Your task to perform on an android device: Open Amazon Image 0: 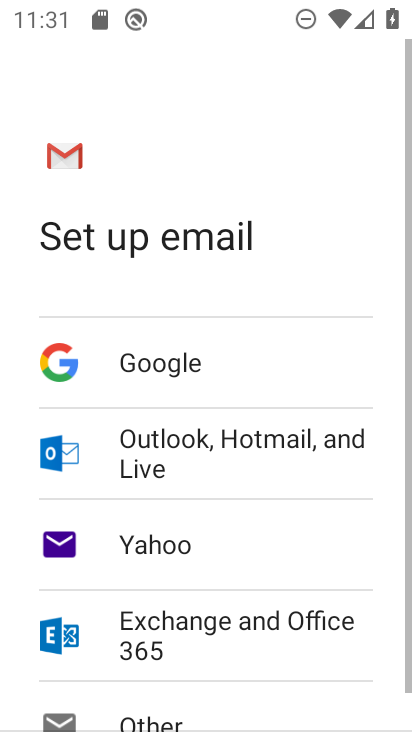
Step 0: press home button
Your task to perform on an android device: Open Amazon Image 1: 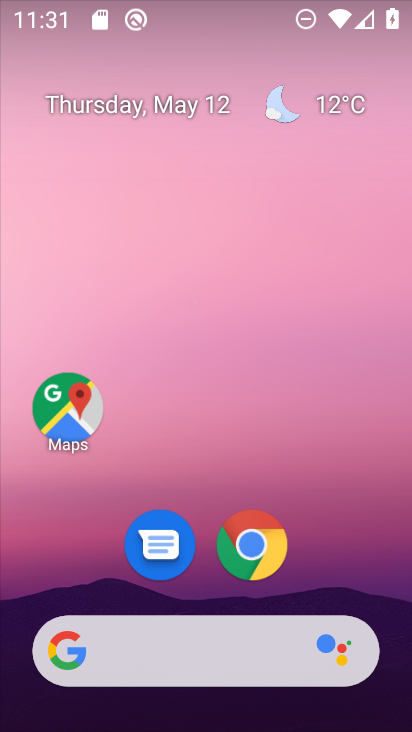
Step 1: click (257, 541)
Your task to perform on an android device: Open Amazon Image 2: 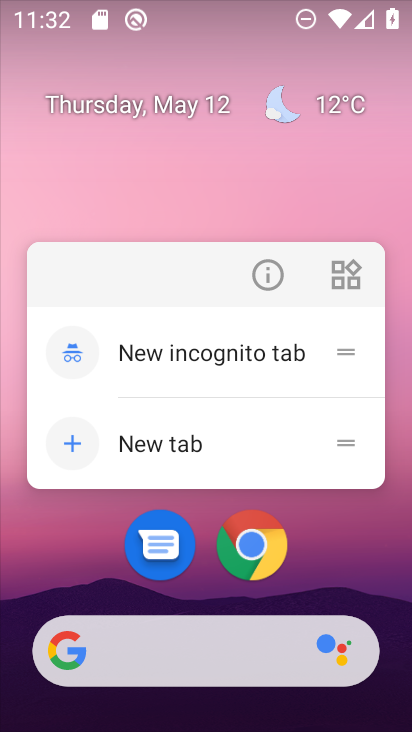
Step 2: click (250, 538)
Your task to perform on an android device: Open Amazon Image 3: 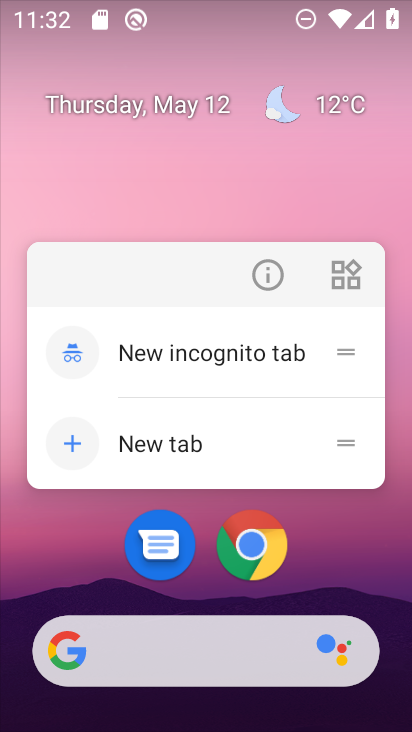
Step 3: click (248, 532)
Your task to perform on an android device: Open Amazon Image 4: 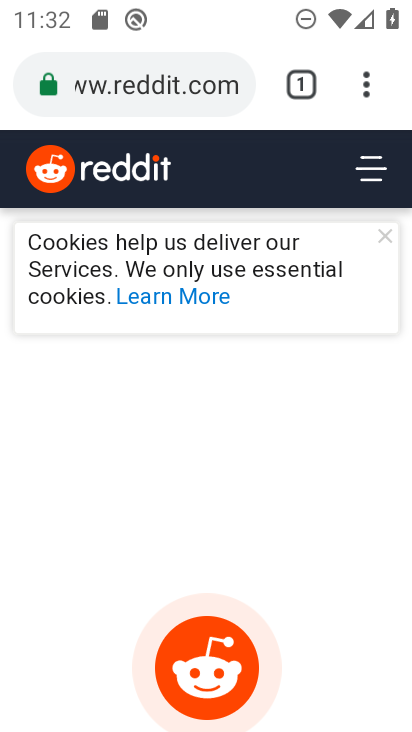
Step 4: drag from (263, 613) to (302, 255)
Your task to perform on an android device: Open Amazon Image 5: 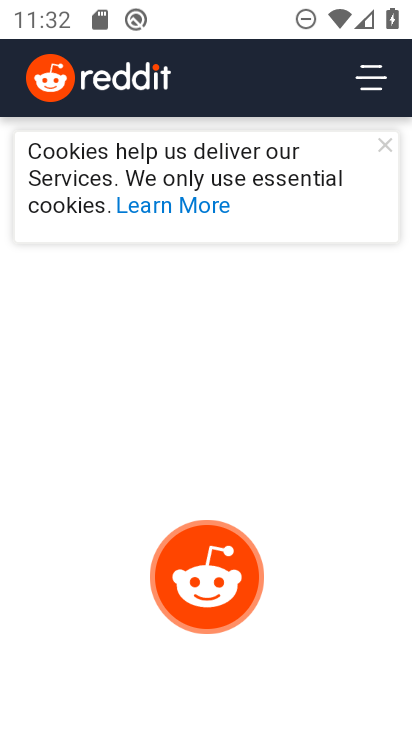
Step 5: drag from (239, 159) to (224, 472)
Your task to perform on an android device: Open Amazon Image 6: 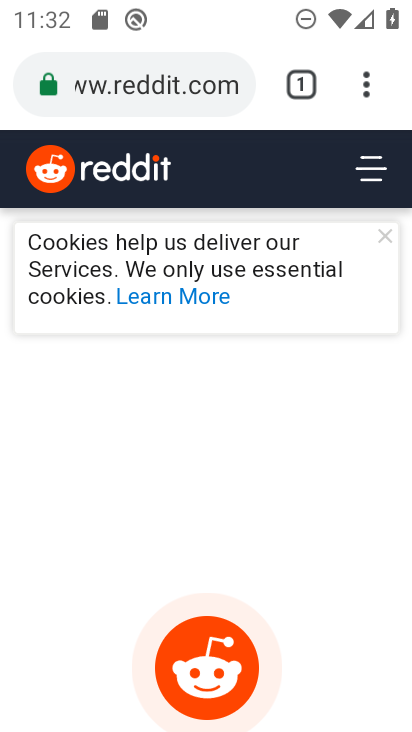
Step 6: click (299, 81)
Your task to perform on an android device: Open Amazon Image 7: 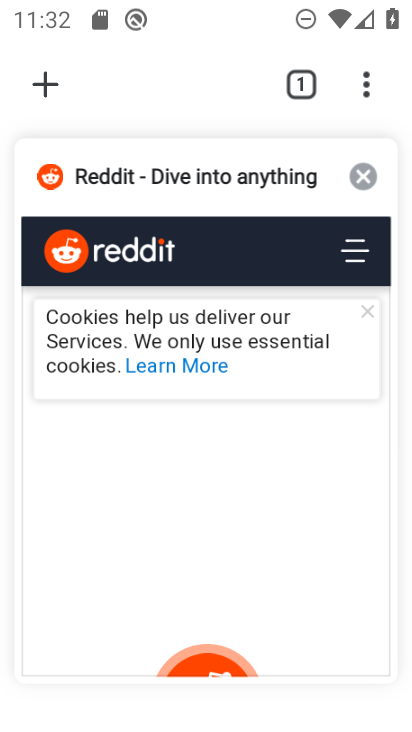
Step 7: click (360, 173)
Your task to perform on an android device: Open Amazon Image 8: 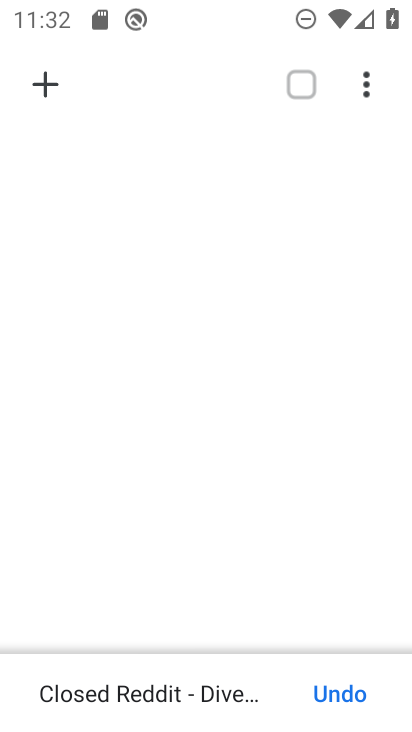
Step 8: click (48, 81)
Your task to perform on an android device: Open Amazon Image 9: 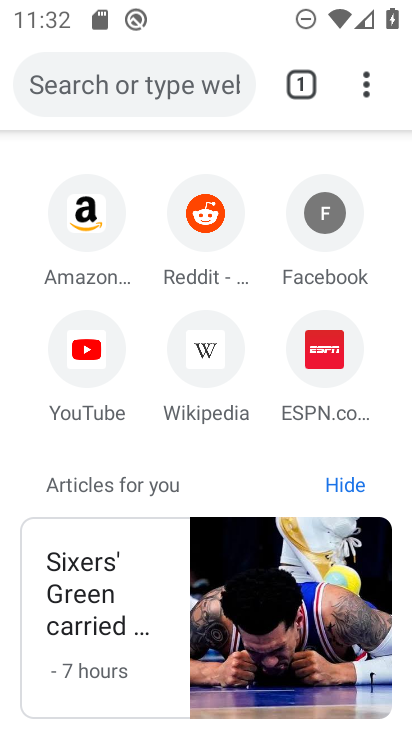
Step 9: click (84, 205)
Your task to perform on an android device: Open Amazon Image 10: 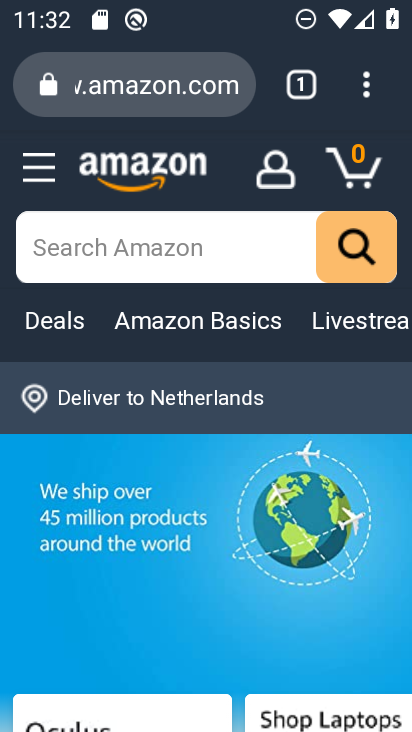
Step 10: task complete